Your task to perform on an android device: Search for sushi restaurants on Maps Image 0: 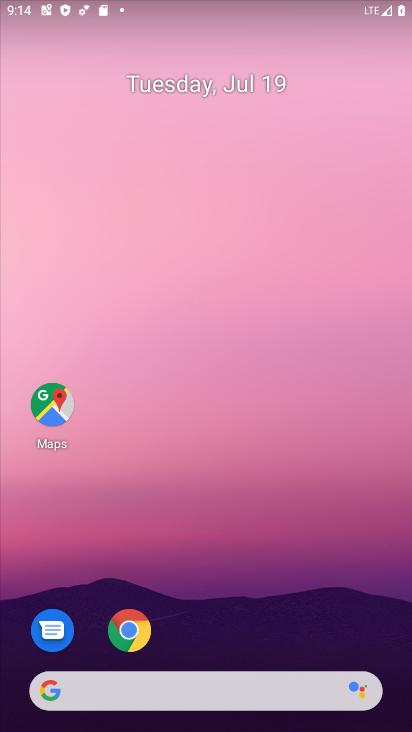
Step 0: click (44, 403)
Your task to perform on an android device: Search for sushi restaurants on Maps Image 1: 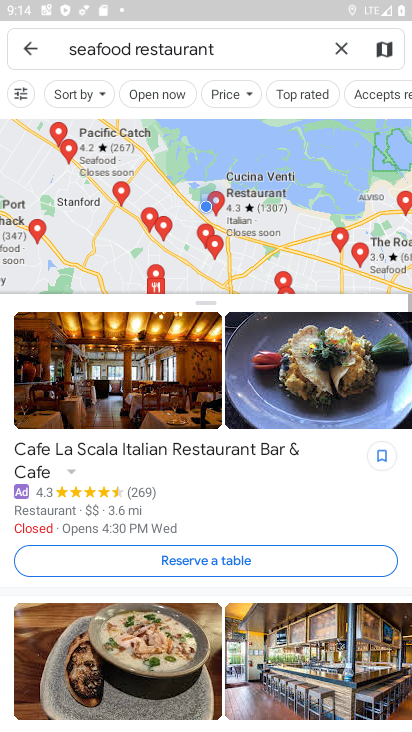
Step 1: click (338, 51)
Your task to perform on an android device: Search for sushi restaurants on Maps Image 2: 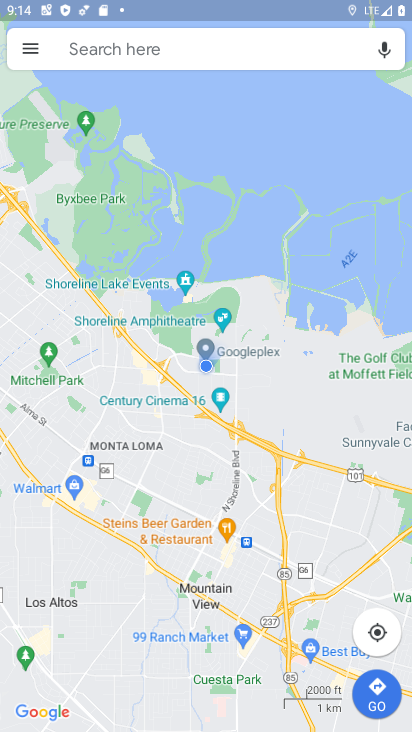
Step 2: click (197, 54)
Your task to perform on an android device: Search for sushi restaurants on Maps Image 3: 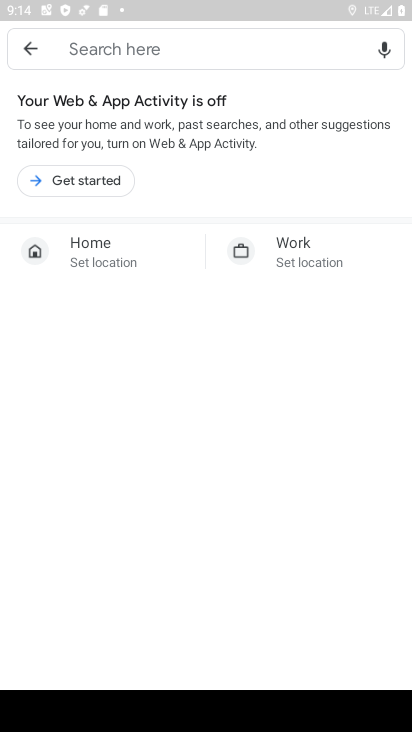
Step 3: type "sushi restaurents"
Your task to perform on an android device: Search for sushi restaurants on Maps Image 4: 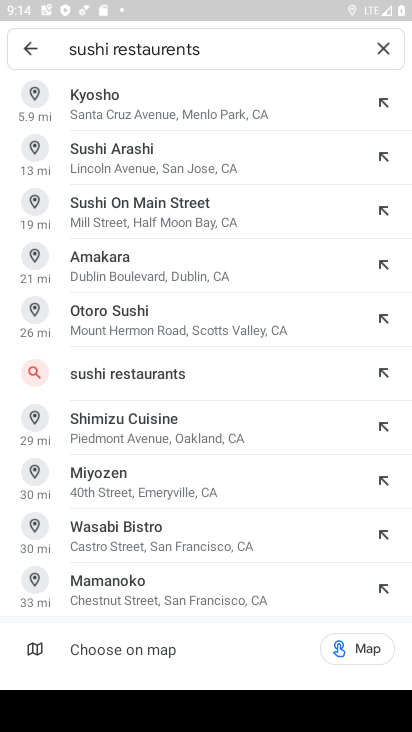
Step 4: click (152, 159)
Your task to perform on an android device: Search for sushi restaurants on Maps Image 5: 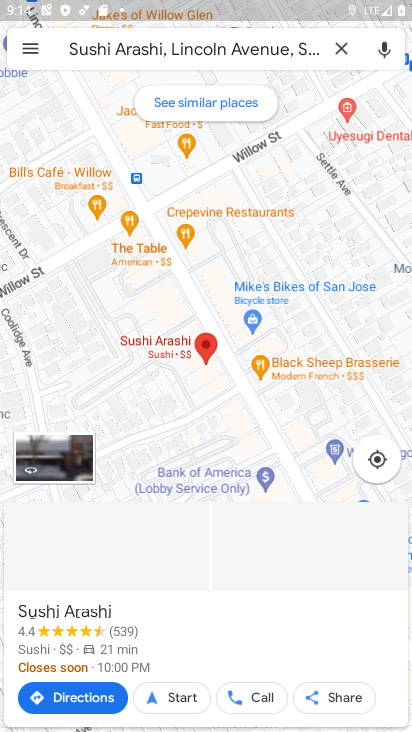
Step 5: task complete